Your task to perform on an android device: Open Google Chrome and click the shortcut for Amazon.com Image 0: 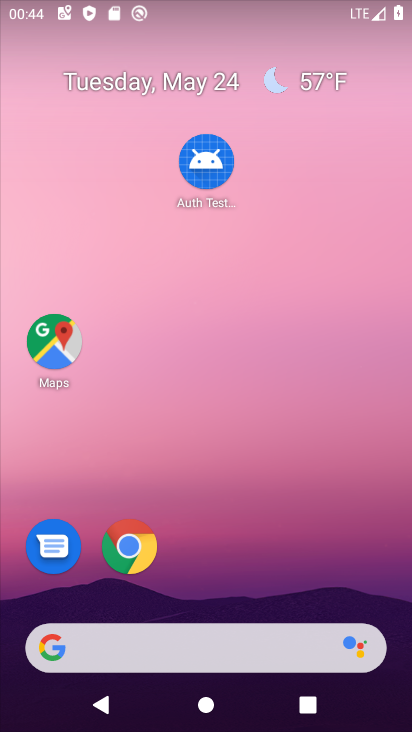
Step 0: drag from (188, 606) to (210, 121)
Your task to perform on an android device: Open Google Chrome and click the shortcut for Amazon.com Image 1: 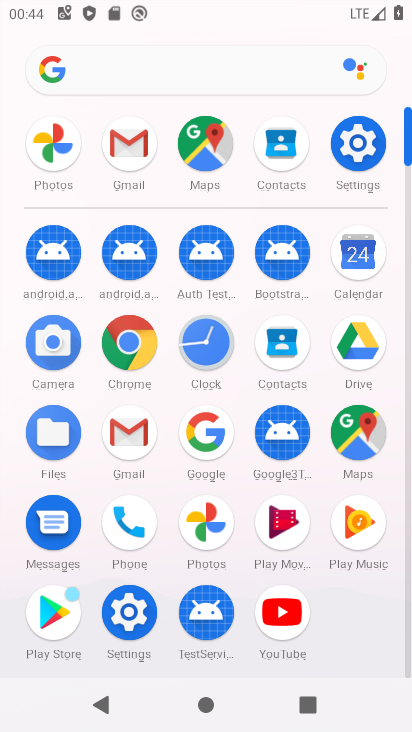
Step 1: drag from (171, 569) to (266, 142)
Your task to perform on an android device: Open Google Chrome and click the shortcut for Amazon.com Image 2: 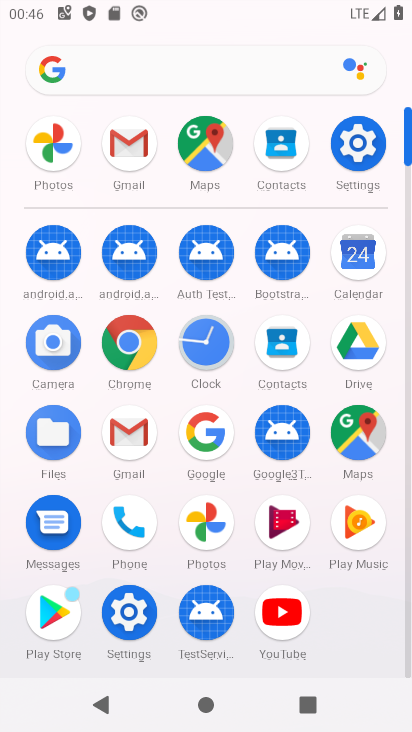
Step 2: click (135, 350)
Your task to perform on an android device: Open Google Chrome and click the shortcut for Amazon.com Image 3: 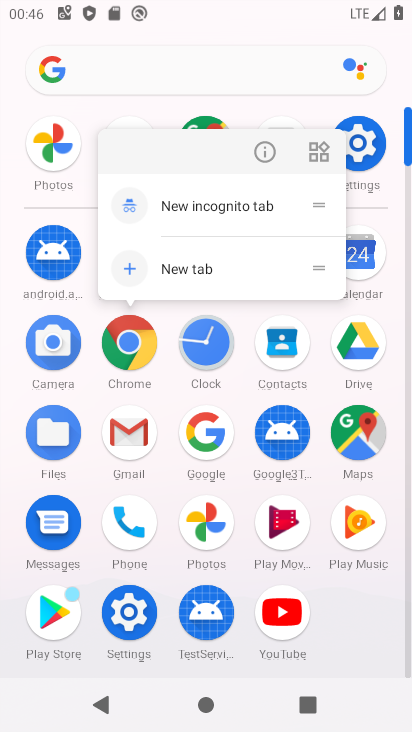
Step 3: click (270, 149)
Your task to perform on an android device: Open Google Chrome and click the shortcut for Amazon.com Image 4: 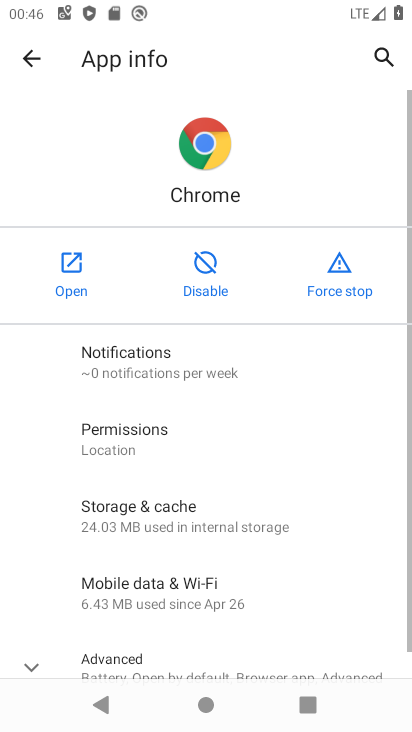
Step 4: click (77, 255)
Your task to perform on an android device: Open Google Chrome and click the shortcut for Amazon.com Image 5: 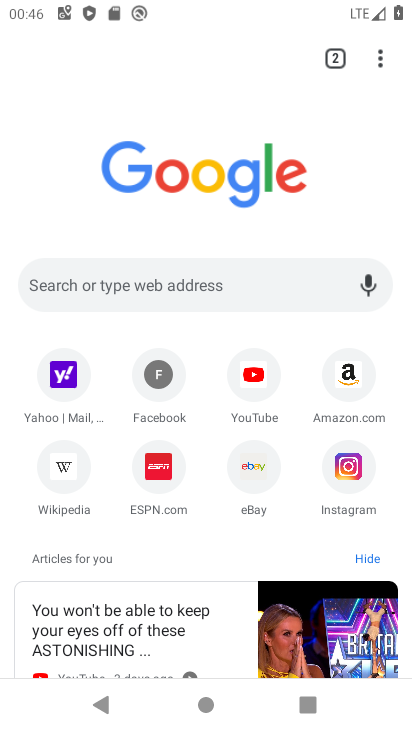
Step 5: click (363, 370)
Your task to perform on an android device: Open Google Chrome and click the shortcut for Amazon.com Image 6: 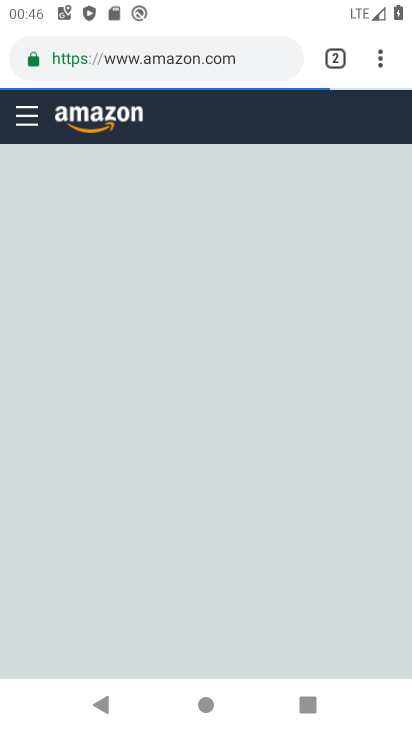
Step 6: task complete